Your task to perform on an android device: Open accessibility settings Image 0: 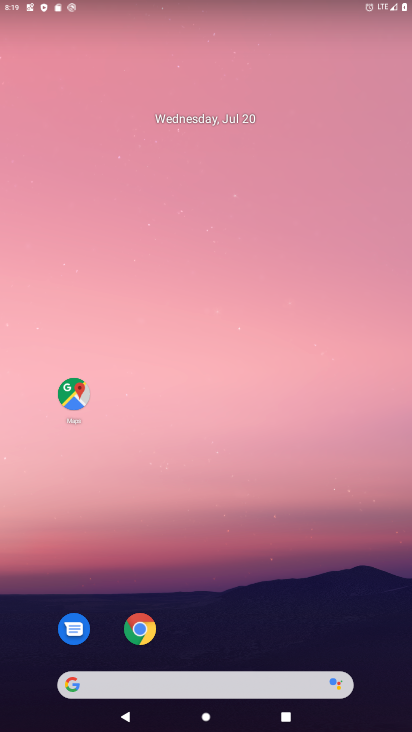
Step 0: drag from (175, 559) to (117, 16)
Your task to perform on an android device: Open accessibility settings Image 1: 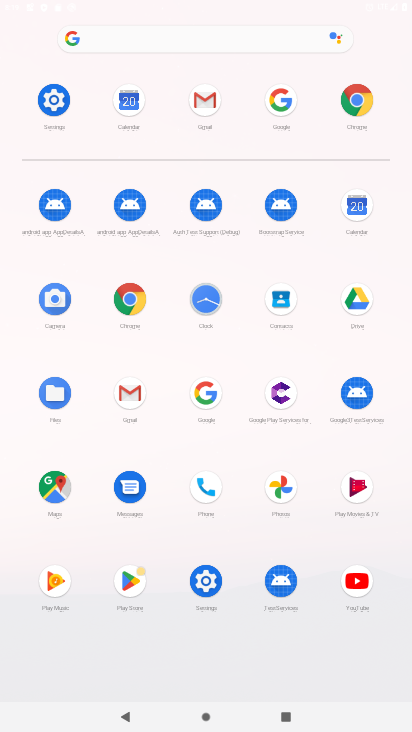
Step 1: click (57, 97)
Your task to perform on an android device: Open accessibility settings Image 2: 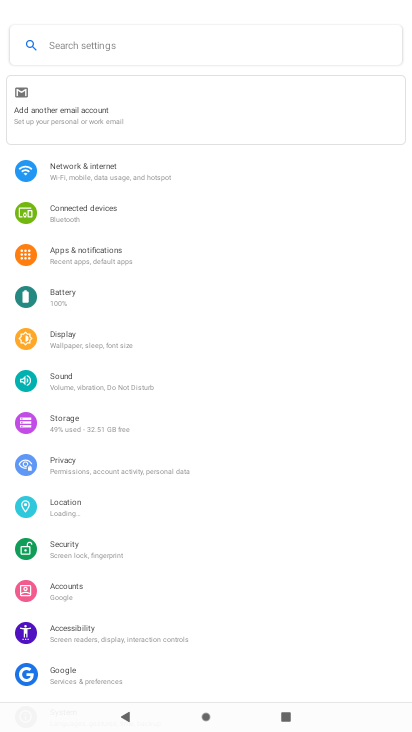
Step 2: drag from (119, 614) to (91, 223)
Your task to perform on an android device: Open accessibility settings Image 3: 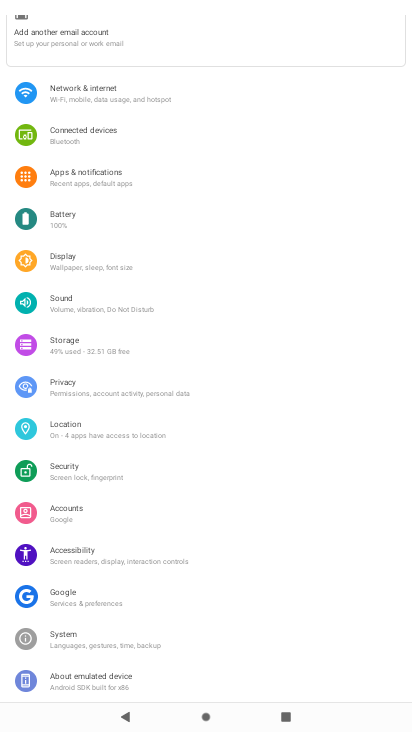
Step 3: click (81, 562)
Your task to perform on an android device: Open accessibility settings Image 4: 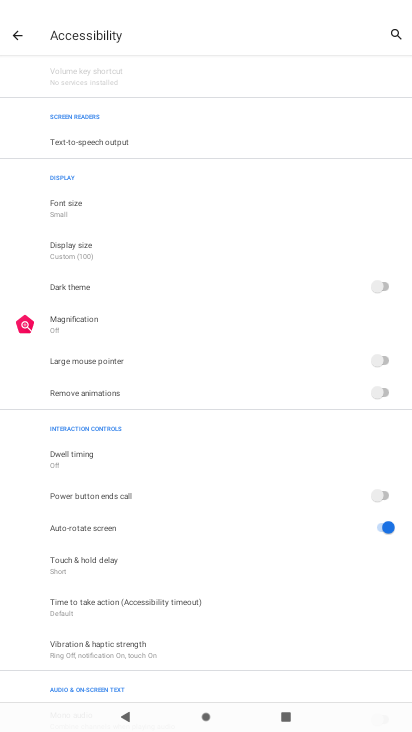
Step 4: task complete